Your task to perform on an android device: Go to accessibility settings Image 0: 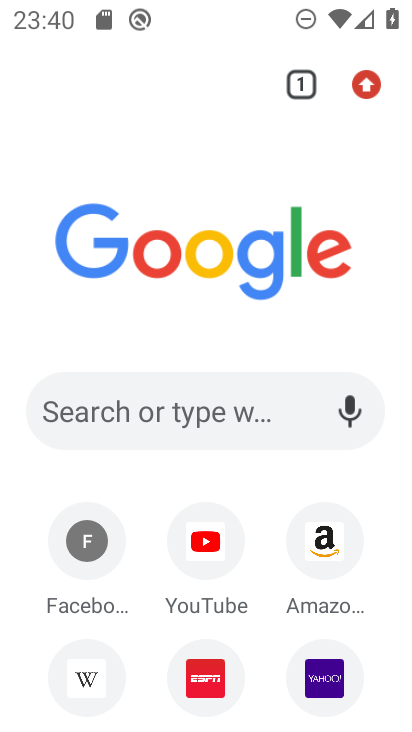
Step 0: press home button
Your task to perform on an android device: Go to accessibility settings Image 1: 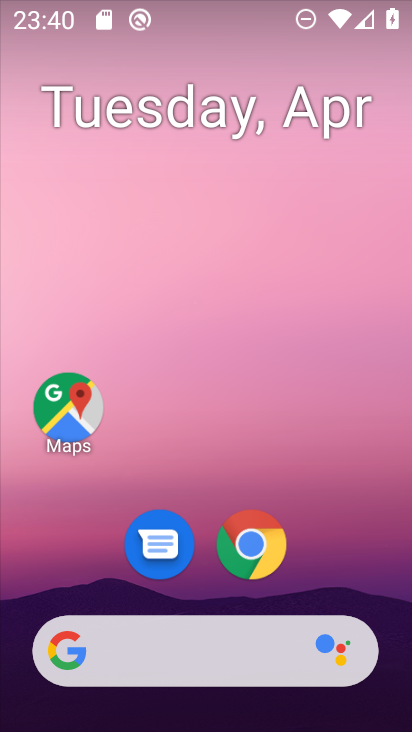
Step 1: drag from (323, 561) to (360, 144)
Your task to perform on an android device: Go to accessibility settings Image 2: 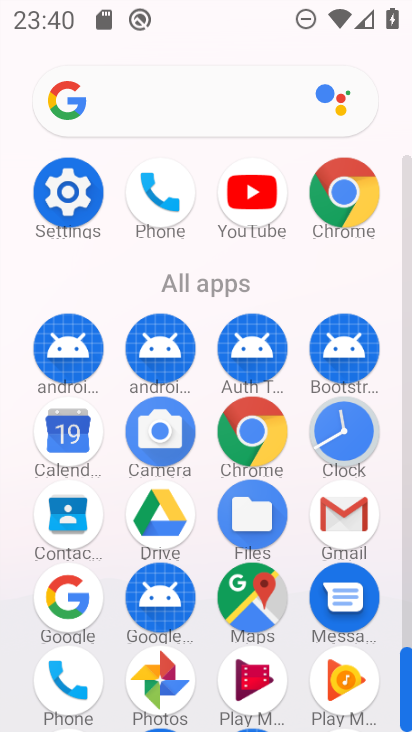
Step 2: click (73, 194)
Your task to perform on an android device: Go to accessibility settings Image 3: 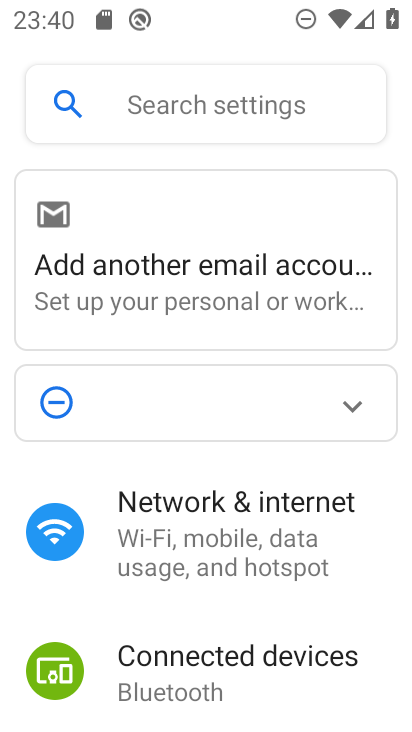
Step 3: drag from (388, 616) to (385, 480)
Your task to perform on an android device: Go to accessibility settings Image 4: 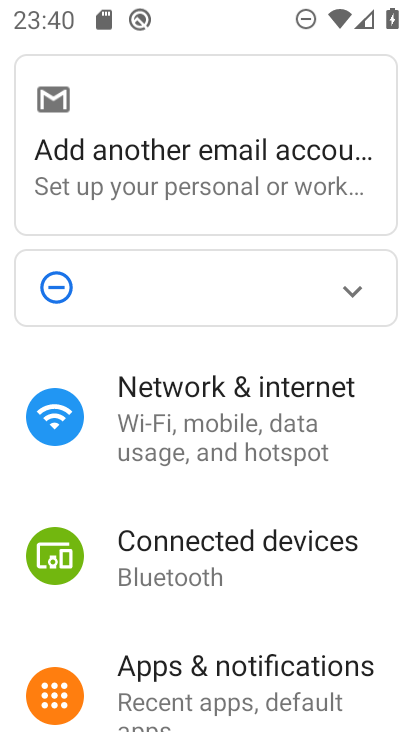
Step 4: drag from (372, 576) to (410, 468)
Your task to perform on an android device: Go to accessibility settings Image 5: 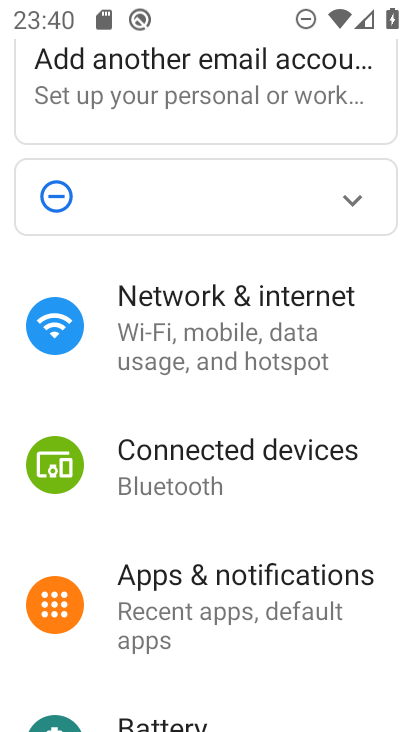
Step 5: drag from (389, 534) to (384, 491)
Your task to perform on an android device: Go to accessibility settings Image 6: 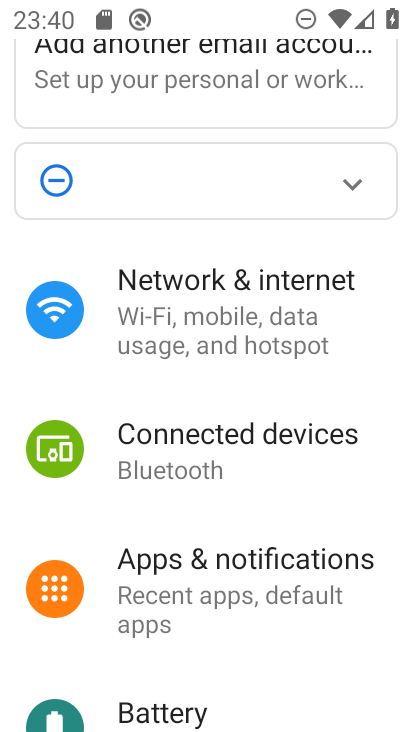
Step 6: drag from (344, 606) to (364, 479)
Your task to perform on an android device: Go to accessibility settings Image 7: 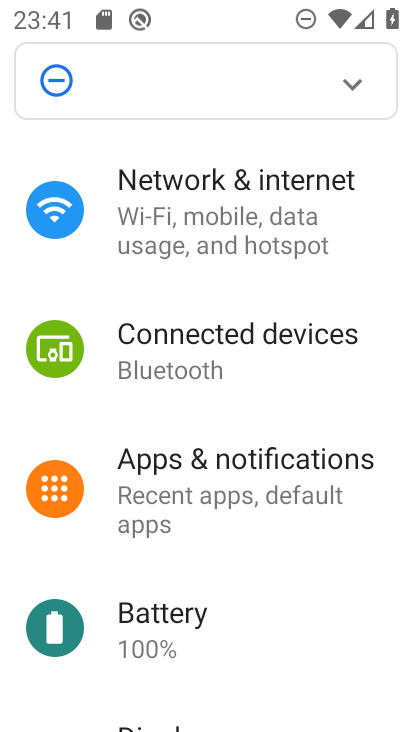
Step 7: drag from (334, 612) to (340, 550)
Your task to perform on an android device: Go to accessibility settings Image 8: 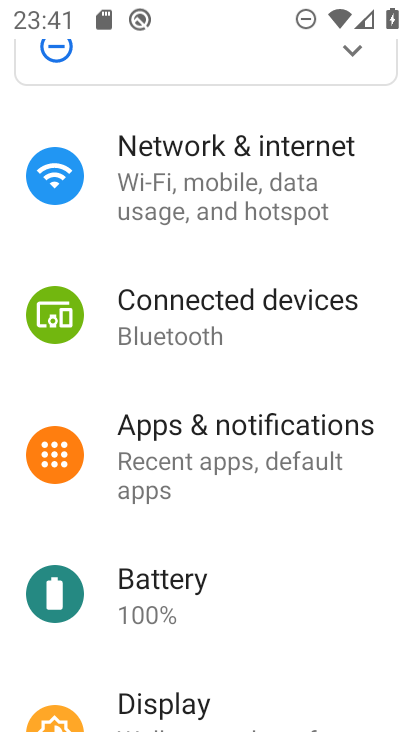
Step 8: drag from (335, 602) to (328, 568)
Your task to perform on an android device: Go to accessibility settings Image 9: 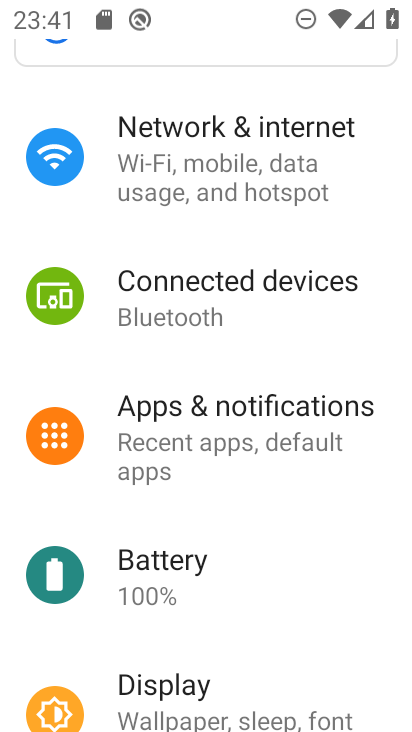
Step 9: drag from (299, 617) to (345, 458)
Your task to perform on an android device: Go to accessibility settings Image 10: 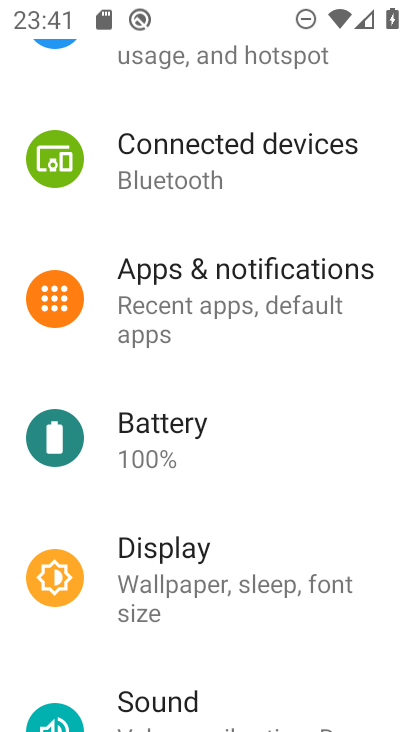
Step 10: drag from (336, 623) to (372, 560)
Your task to perform on an android device: Go to accessibility settings Image 11: 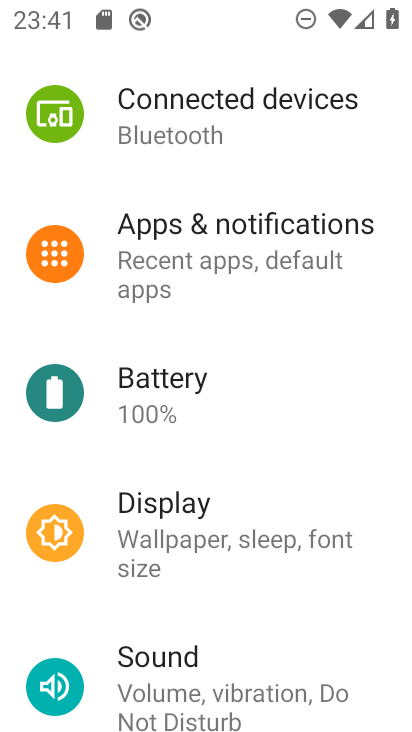
Step 11: drag from (356, 613) to (376, 532)
Your task to perform on an android device: Go to accessibility settings Image 12: 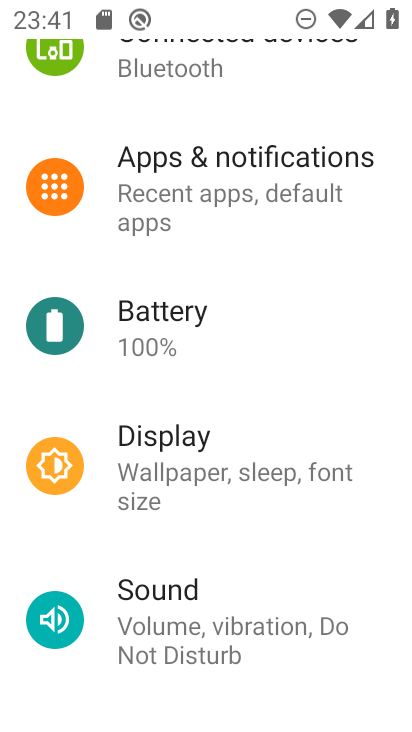
Step 12: drag from (365, 590) to (380, 440)
Your task to perform on an android device: Go to accessibility settings Image 13: 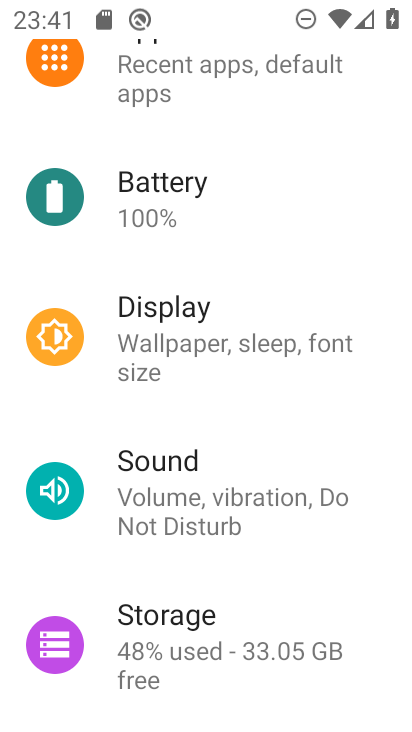
Step 13: drag from (360, 589) to (385, 497)
Your task to perform on an android device: Go to accessibility settings Image 14: 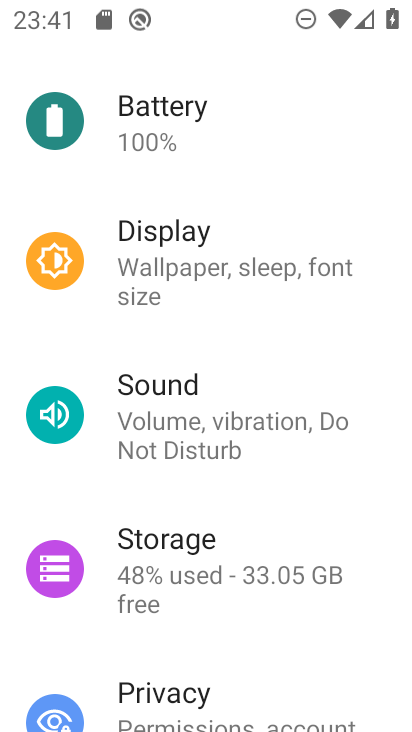
Step 14: click (373, 559)
Your task to perform on an android device: Go to accessibility settings Image 15: 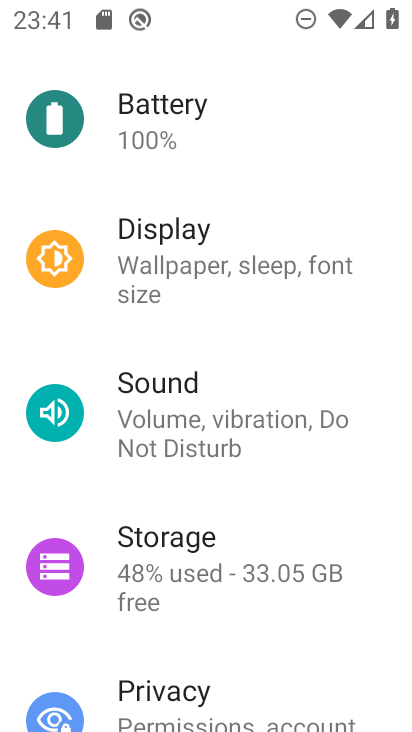
Step 15: drag from (334, 626) to (359, 512)
Your task to perform on an android device: Go to accessibility settings Image 16: 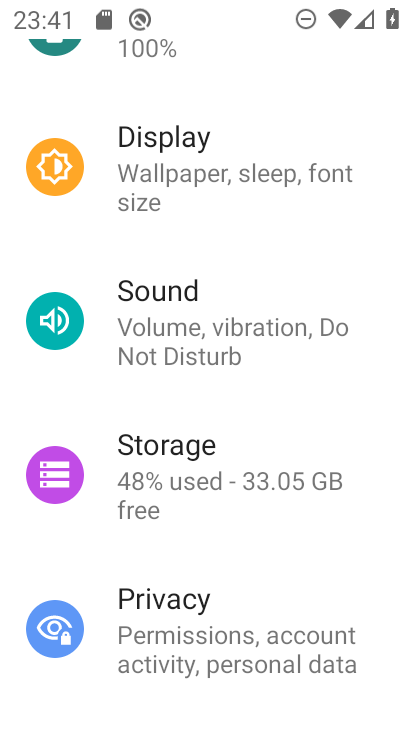
Step 16: drag from (355, 644) to (336, 583)
Your task to perform on an android device: Go to accessibility settings Image 17: 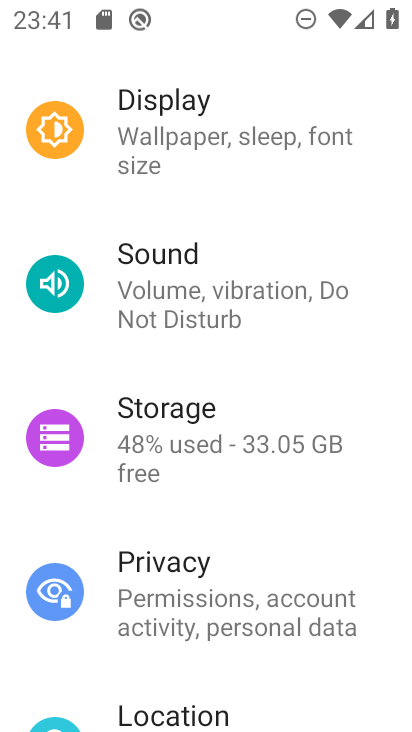
Step 17: drag from (293, 667) to (320, 477)
Your task to perform on an android device: Go to accessibility settings Image 18: 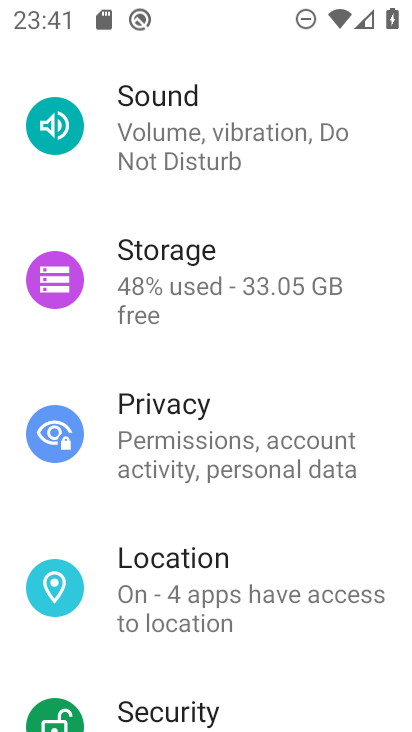
Step 18: drag from (370, 650) to (409, 572)
Your task to perform on an android device: Go to accessibility settings Image 19: 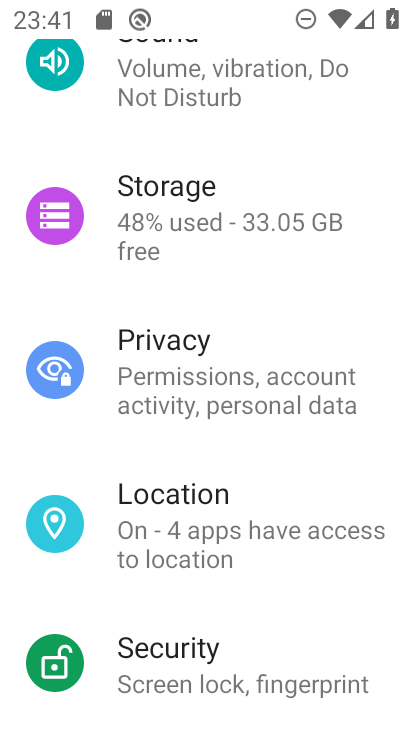
Step 19: drag from (366, 644) to (368, 543)
Your task to perform on an android device: Go to accessibility settings Image 20: 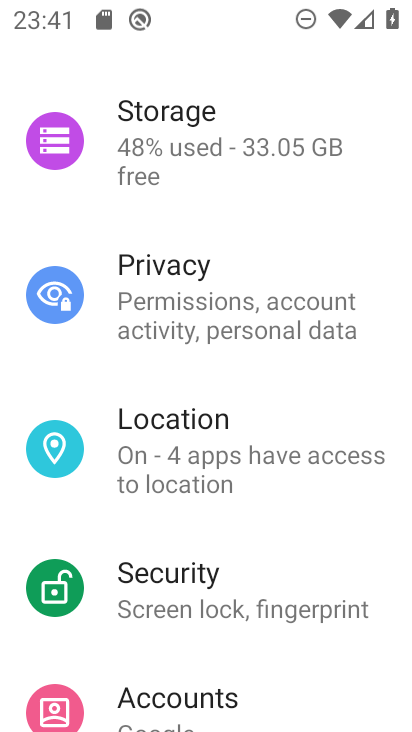
Step 20: drag from (372, 564) to (403, 279)
Your task to perform on an android device: Go to accessibility settings Image 21: 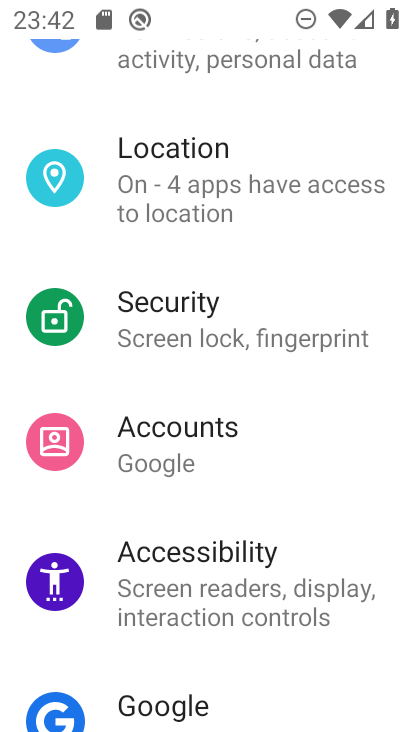
Step 21: click (218, 587)
Your task to perform on an android device: Go to accessibility settings Image 22: 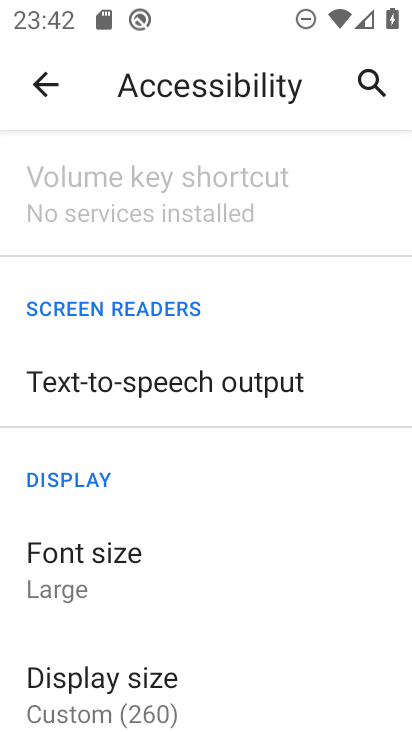
Step 22: task complete